Your task to perform on an android device: Open location settings Image 0: 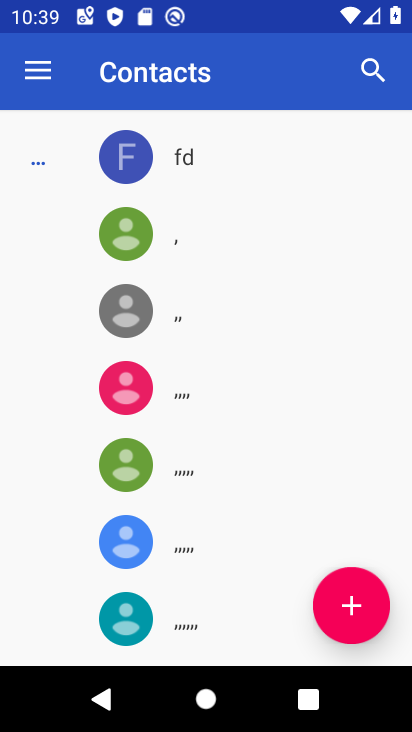
Step 0: press home button
Your task to perform on an android device: Open location settings Image 1: 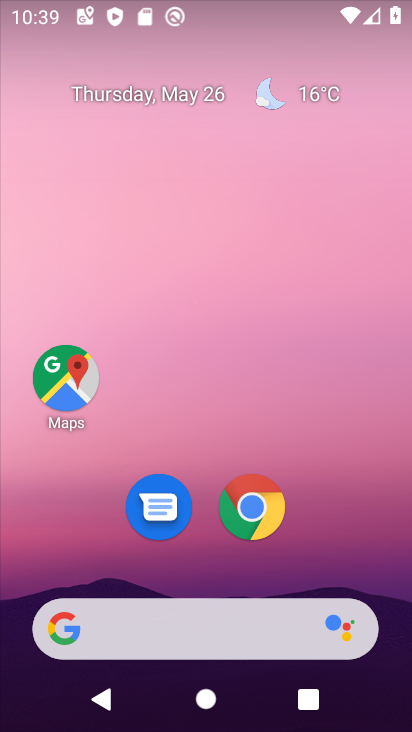
Step 1: drag from (243, 573) to (275, 216)
Your task to perform on an android device: Open location settings Image 2: 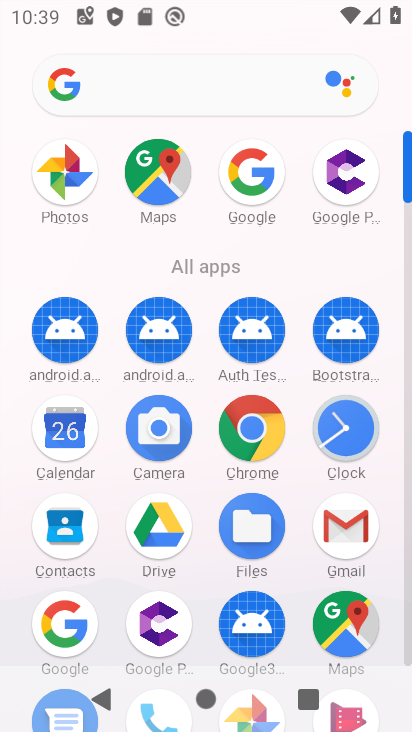
Step 2: drag from (116, 589) to (116, 290)
Your task to perform on an android device: Open location settings Image 3: 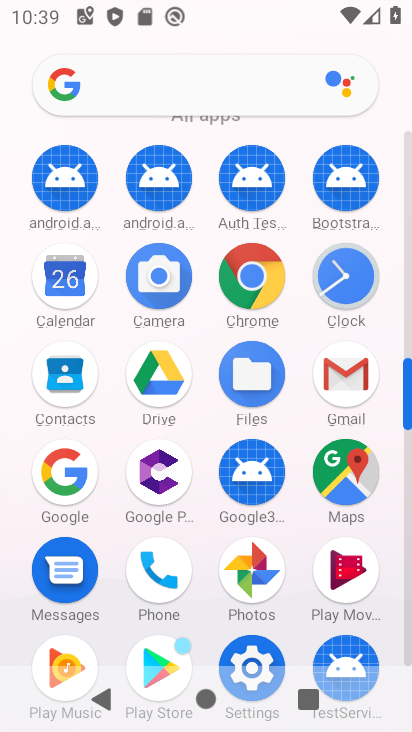
Step 3: drag from (290, 639) to (277, 329)
Your task to perform on an android device: Open location settings Image 4: 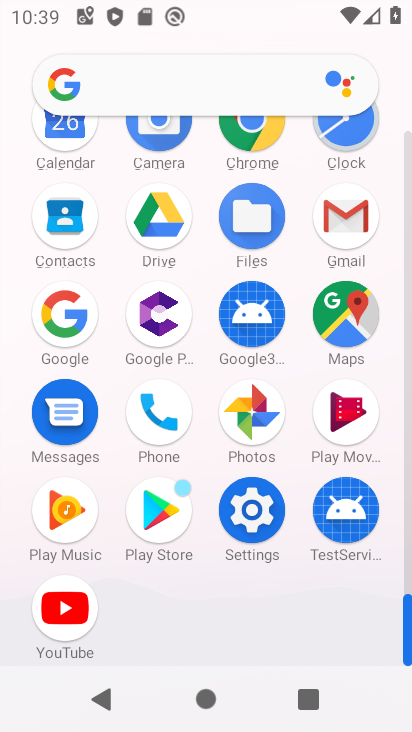
Step 4: click (253, 515)
Your task to perform on an android device: Open location settings Image 5: 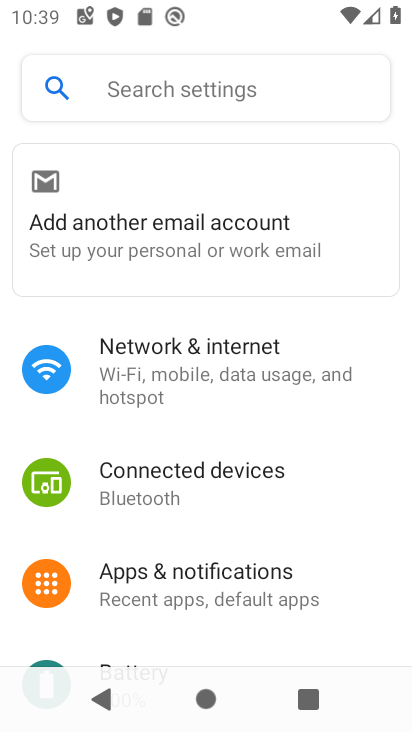
Step 5: drag from (197, 583) to (222, 170)
Your task to perform on an android device: Open location settings Image 6: 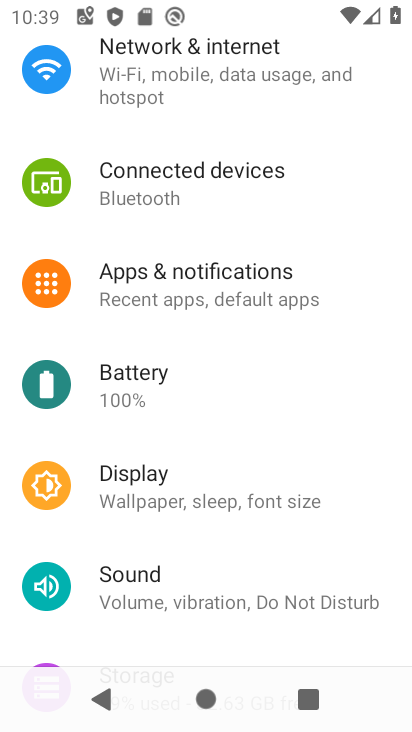
Step 6: drag from (170, 619) to (206, 229)
Your task to perform on an android device: Open location settings Image 7: 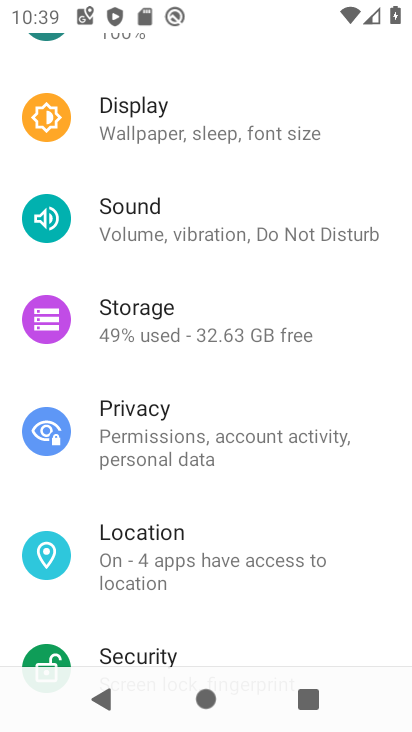
Step 7: click (176, 557)
Your task to perform on an android device: Open location settings Image 8: 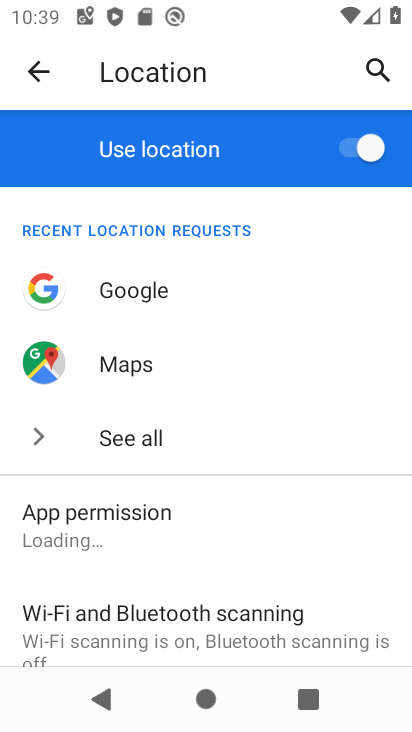
Step 8: task complete